Your task to perform on an android device: check storage Image 0: 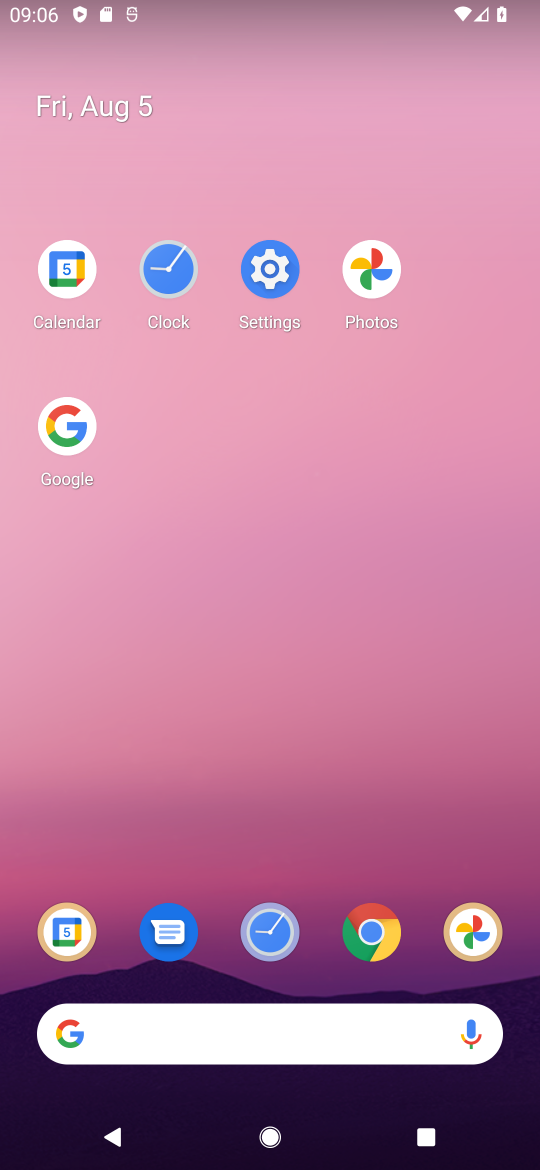
Step 0: click (237, 268)
Your task to perform on an android device: check storage Image 1: 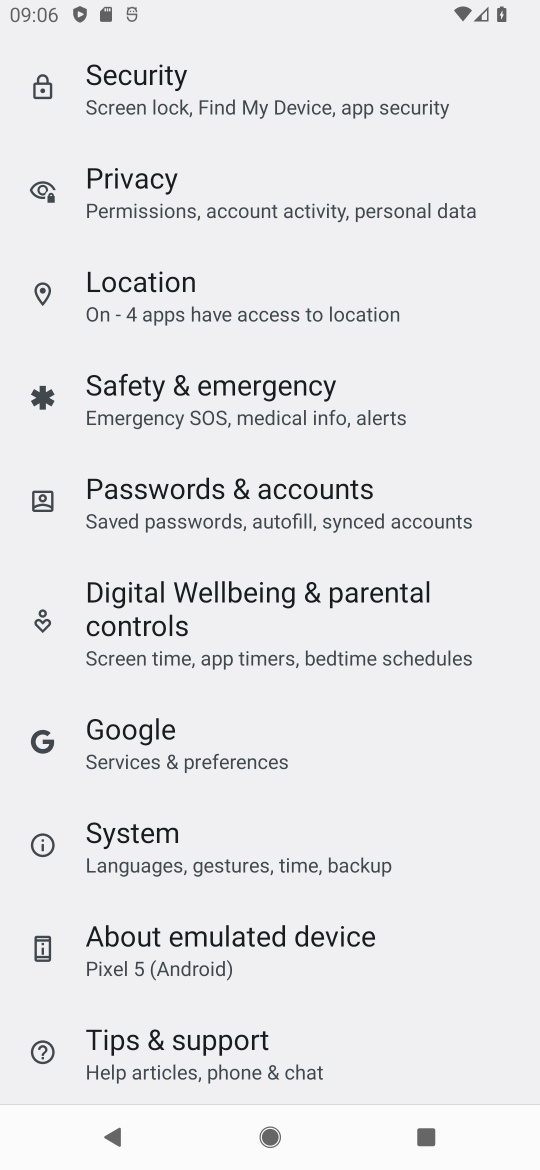
Step 1: drag from (311, 287) to (413, 918)
Your task to perform on an android device: check storage Image 2: 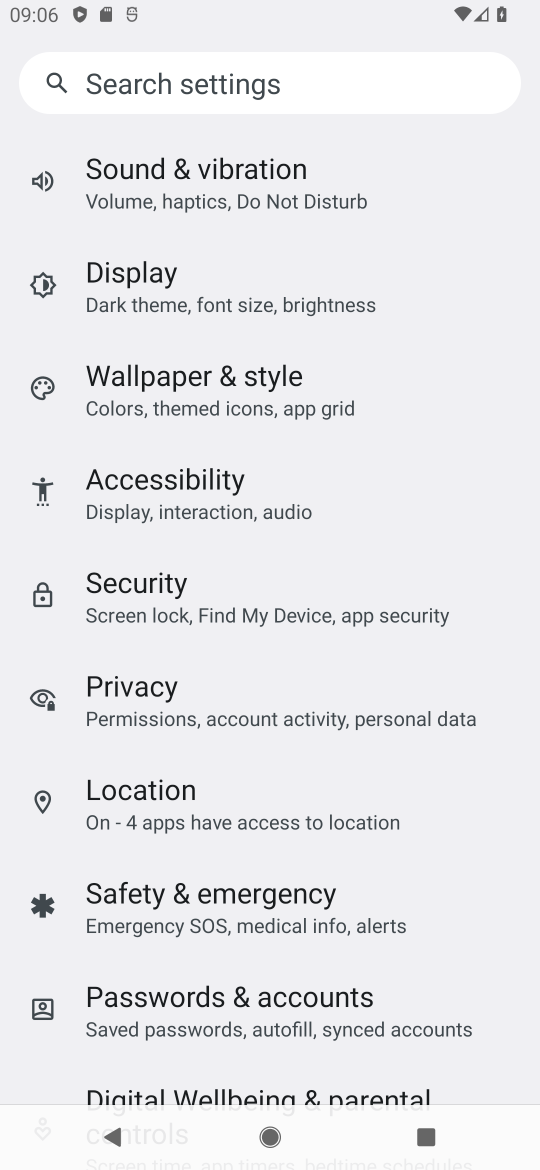
Step 2: drag from (289, 448) to (313, 957)
Your task to perform on an android device: check storage Image 3: 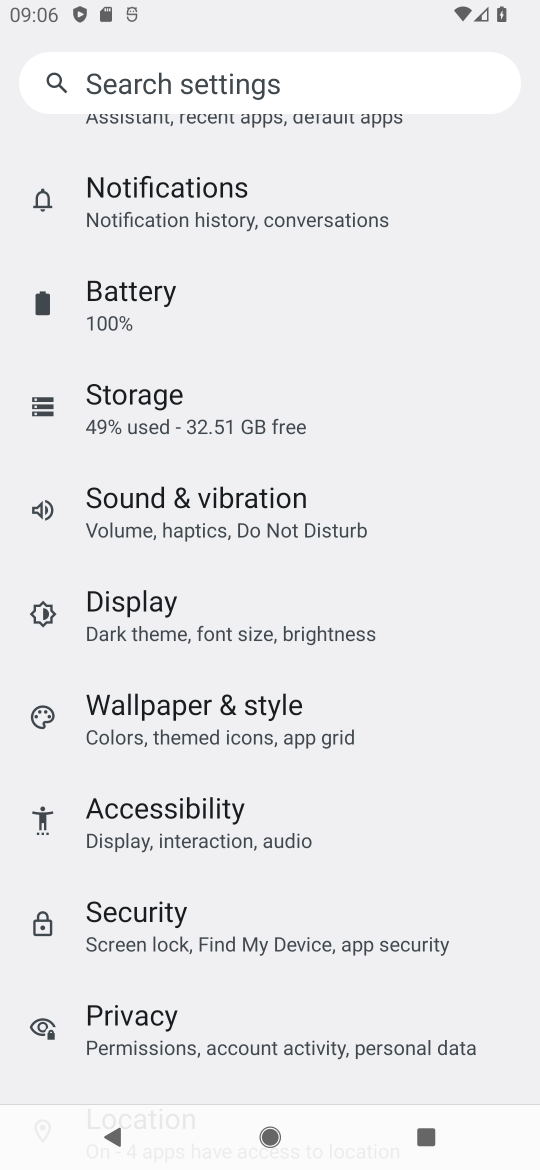
Step 3: drag from (318, 326) to (284, 661)
Your task to perform on an android device: check storage Image 4: 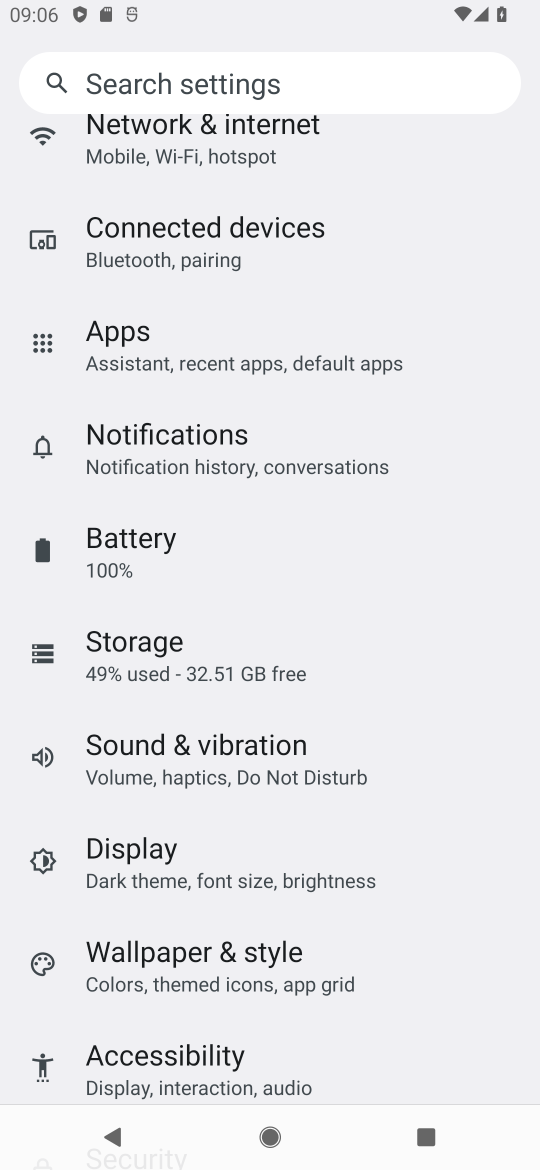
Step 4: click (279, 644)
Your task to perform on an android device: check storage Image 5: 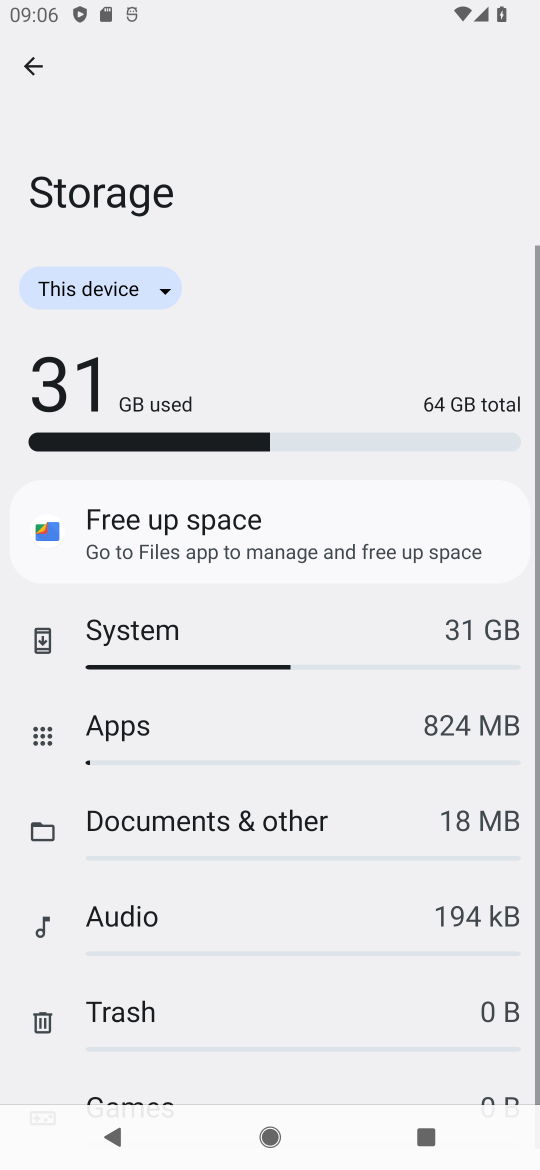
Step 5: task complete